Your task to perform on an android device: open a bookmark in the chrome app Image 0: 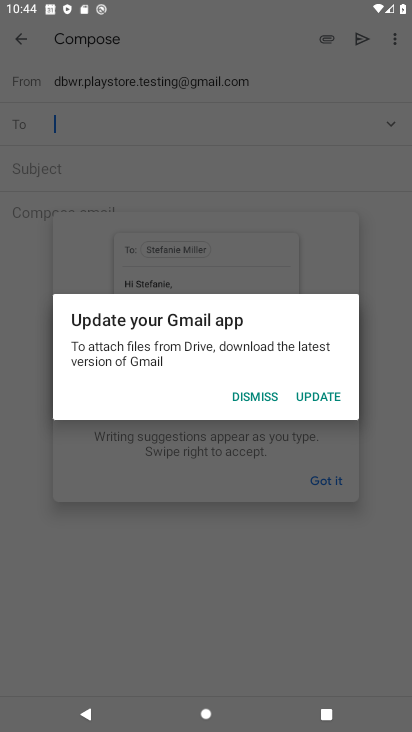
Step 0: press back button
Your task to perform on an android device: open a bookmark in the chrome app Image 1: 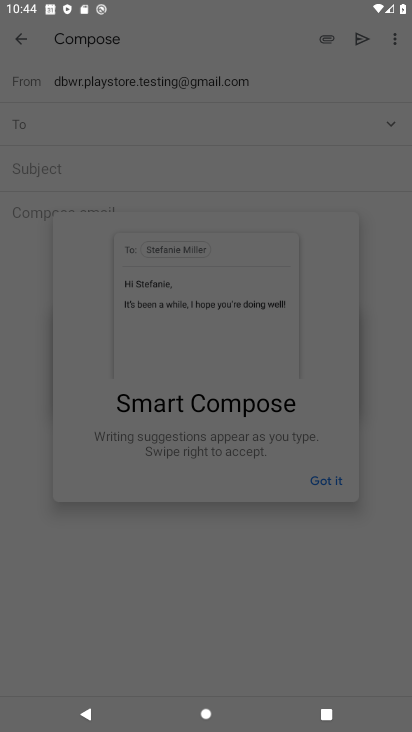
Step 1: press home button
Your task to perform on an android device: open a bookmark in the chrome app Image 2: 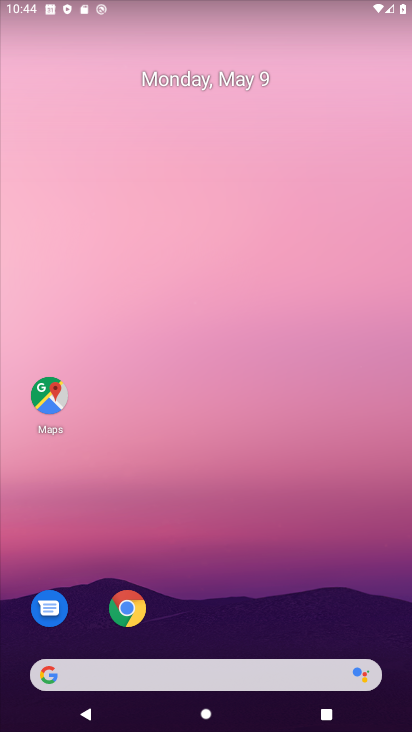
Step 2: click (135, 619)
Your task to perform on an android device: open a bookmark in the chrome app Image 3: 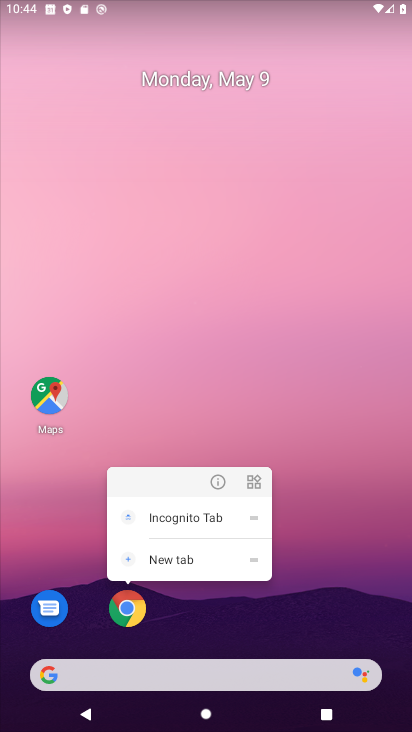
Step 3: click (113, 603)
Your task to perform on an android device: open a bookmark in the chrome app Image 4: 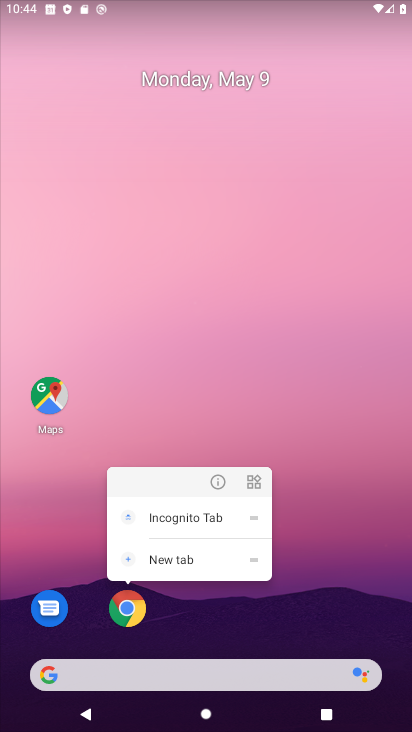
Step 4: click (114, 603)
Your task to perform on an android device: open a bookmark in the chrome app Image 5: 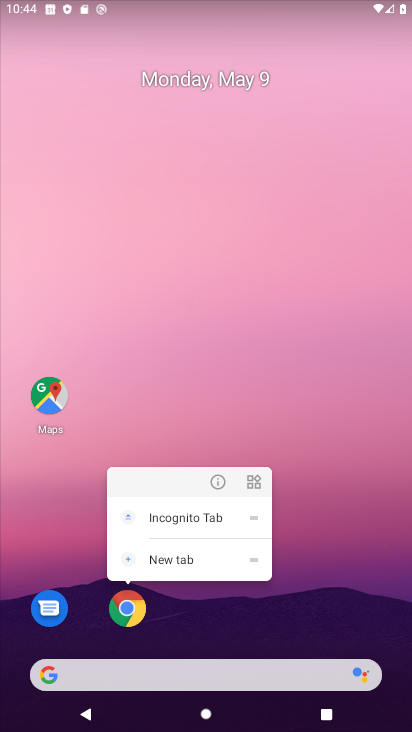
Step 5: click (128, 615)
Your task to perform on an android device: open a bookmark in the chrome app Image 6: 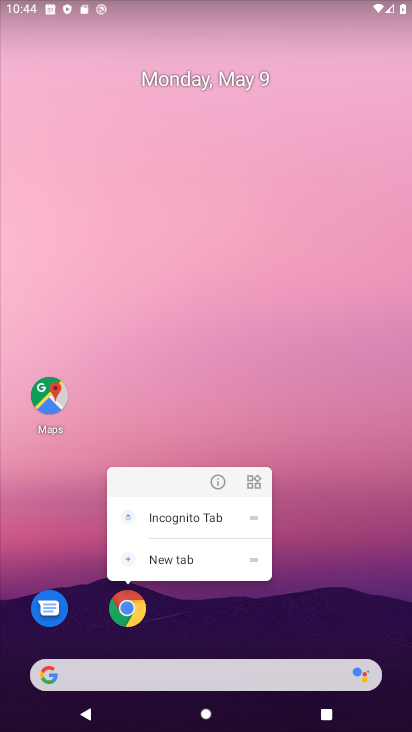
Step 6: click (133, 615)
Your task to perform on an android device: open a bookmark in the chrome app Image 7: 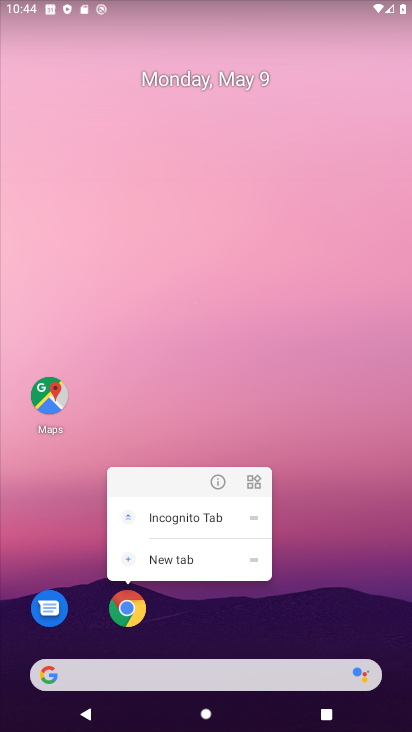
Step 7: click (135, 614)
Your task to perform on an android device: open a bookmark in the chrome app Image 8: 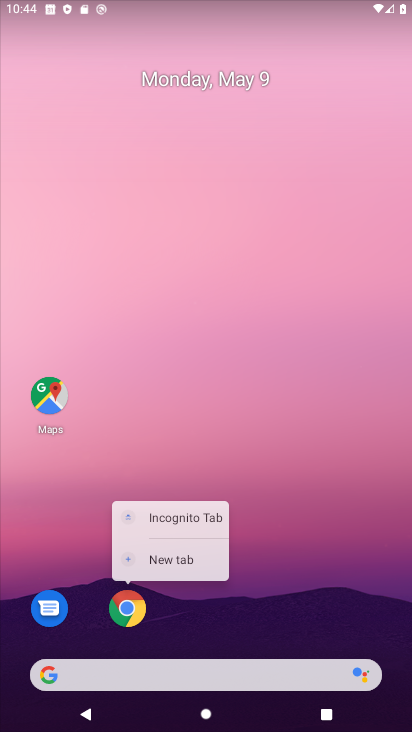
Step 8: click (127, 589)
Your task to perform on an android device: open a bookmark in the chrome app Image 9: 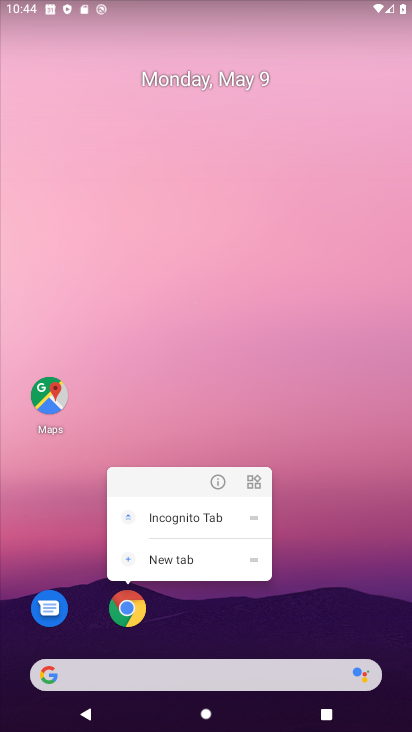
Step 9: click (127, 598)
Your task to perform on an android device: open a bookmark in the chrome app Image 10: 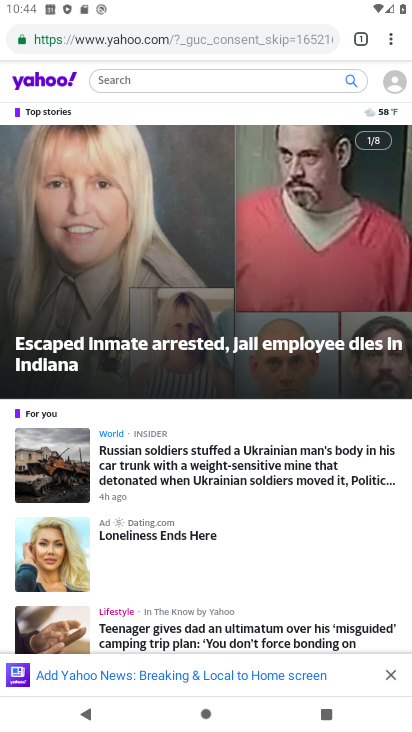
Step 10: task complete